Your task to perform on an android device: Open Chrome and go to the settings page Image 0: 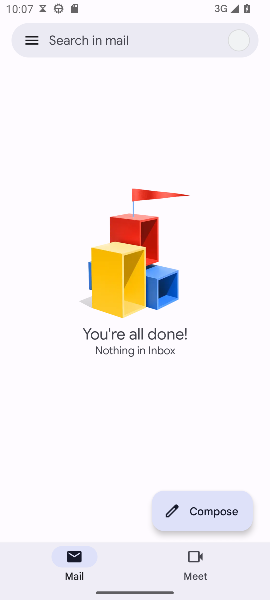
Step 0: press home button
Your task to perform on an android device: Open Chrome and go to the settings page Image 1: 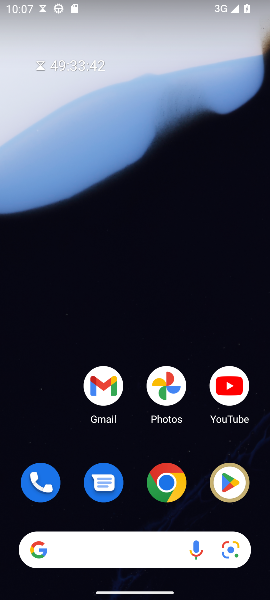
Step 1: press home button
Your task to perform on an android device: Open Chrome and go to the settings page Image 2: 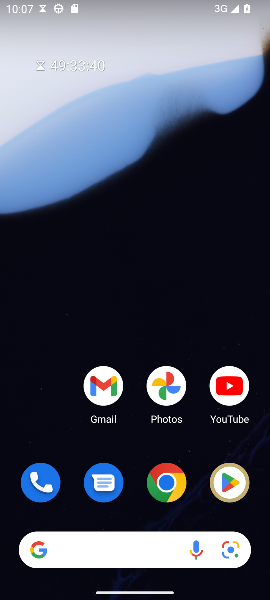
Step 2: drag from (116, 530) to (233, 2)
Your task to perform on an android device: Open Chrome and go to the settings page Image 3: 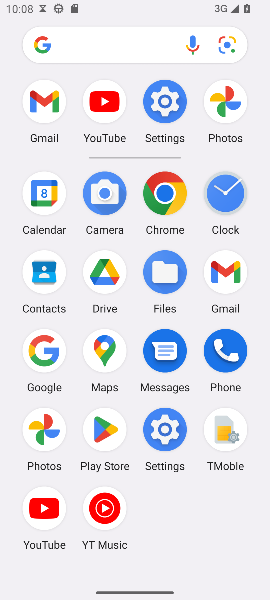
Step 3: click (166, 195)
Your task to perform on an android device: Open Chrome and go to the settings page Image 4: 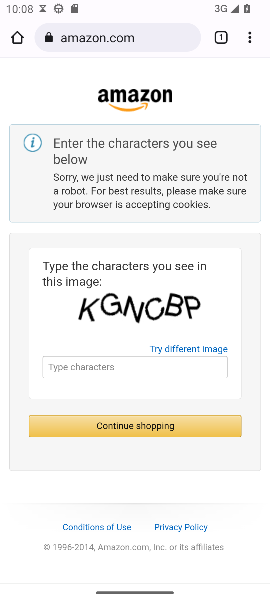
Step 4: task complete